Your task to perform on an android device: Open calendar and show me the third week of next month Image 0: 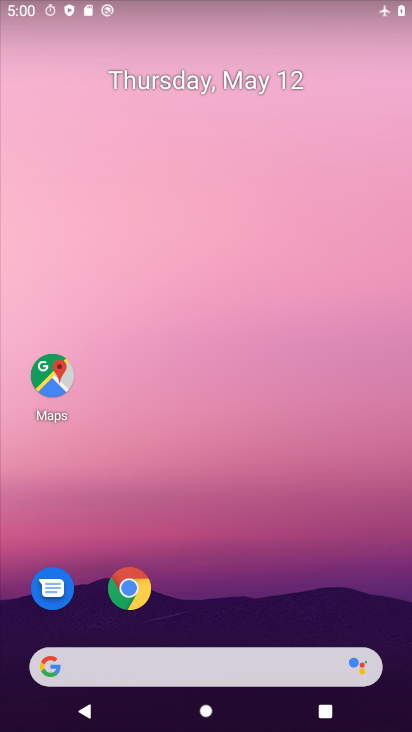
Step 0: drag from (236, 589) to (321, 47)
Your task to perform on an android device: Open calendar and show me the third week of next month Image 1: 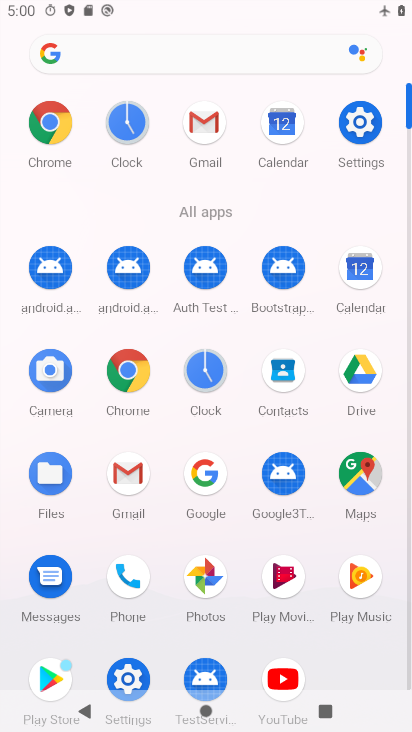
Step 1: click (348, 295)
Your task to perform on an android device: Open calendar and show me the third week of next month Image 2: 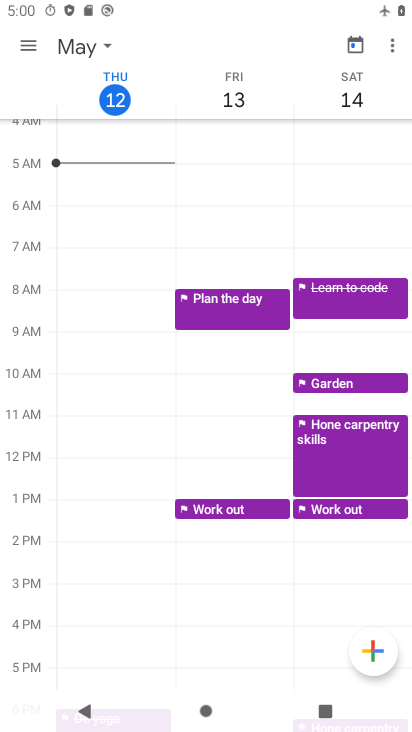
Step 2: click (37, 48)
Your task to perform on an android device: Open calendar and show me the third week of next month Image 3: 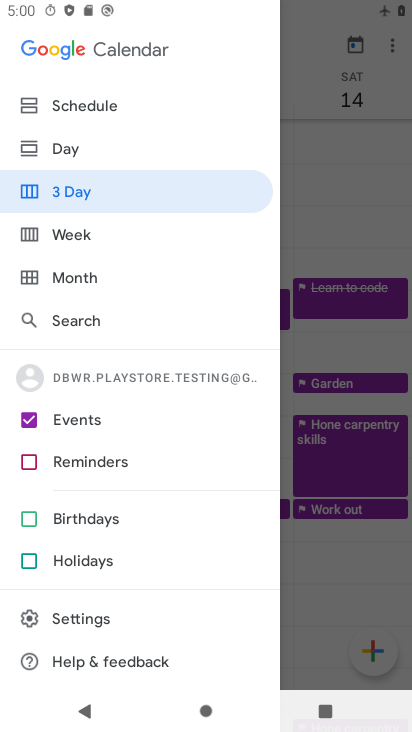
Step 3: click (82, 231)
Your task to perform on an android device: Open calendar and show me the third week of next month Image 4: 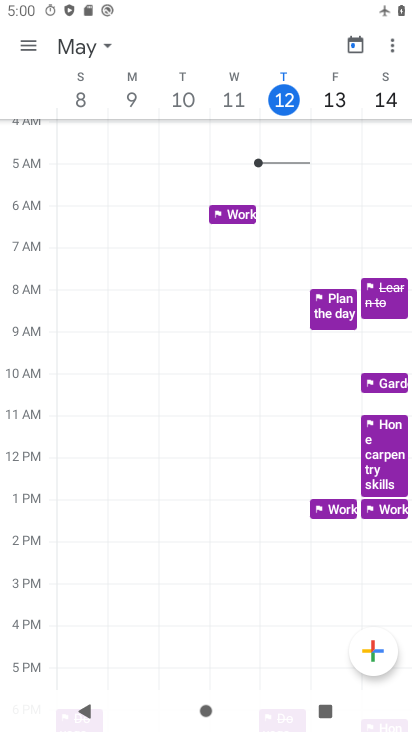
Step 4: task complete